Your task to perform on an android device: Is it going to rain this weekend? Image 0: 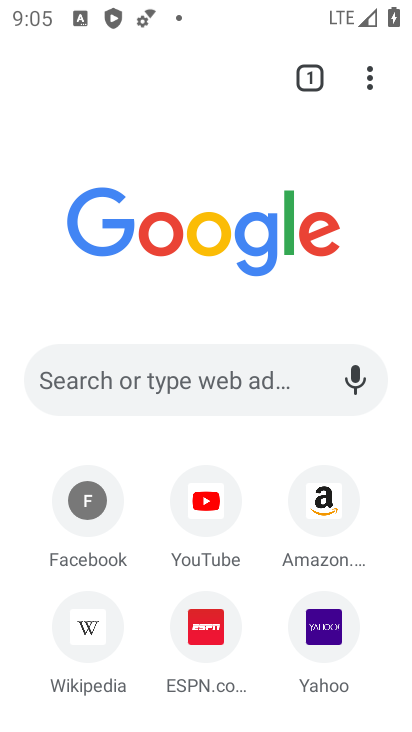
Step 0: press home button
Your task to perform on an android device: Is it going to rain this weekend? Image 1: 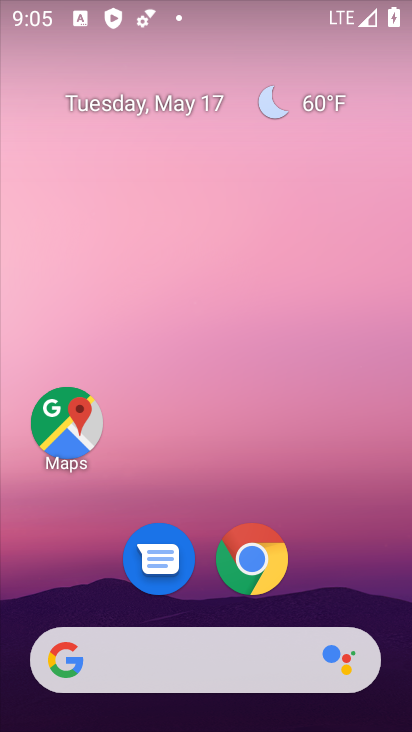
Step 1: drag from (196, 609) to (252, 223)
Your task to perform on an android device: Is it going to rain this weekend? Image 2: 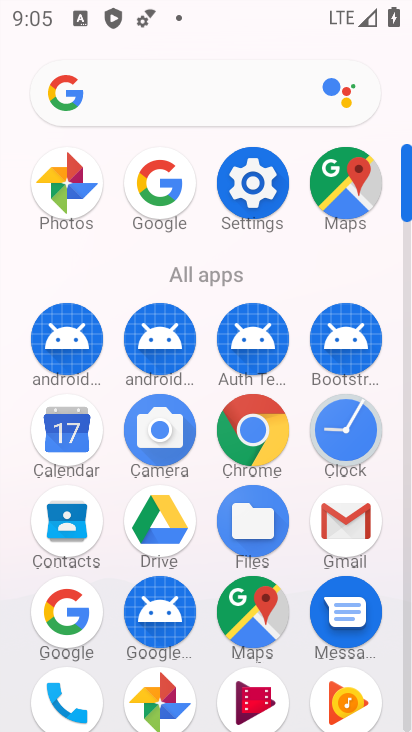
Step 2: click (72, 618)
Your task to perform on an android device: Is it going to rain this weekend? Image 3: 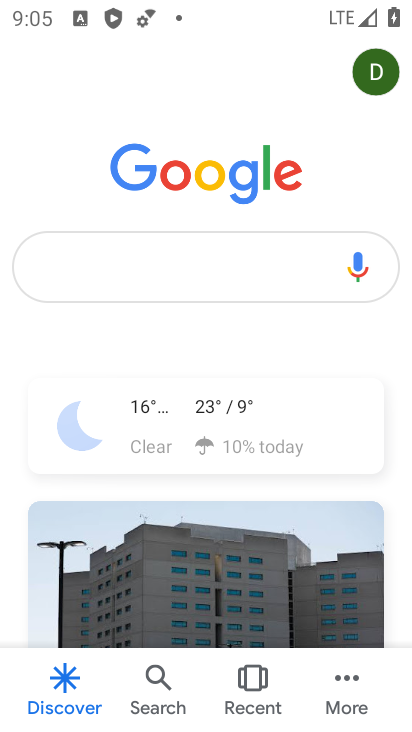
Step 3: click (172, 443)
Your task to perform on an android device: Is it going to rain this weekend? Image 4: 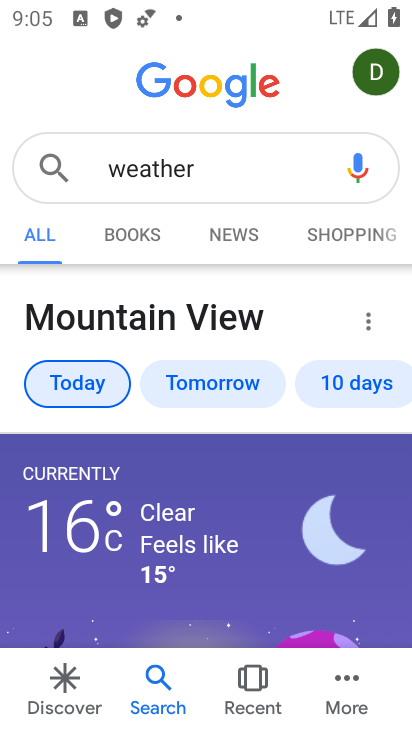
Step 4: click (321, 391)
Your task to perform on an android device: Is it going to rain this weekend? Image 5: 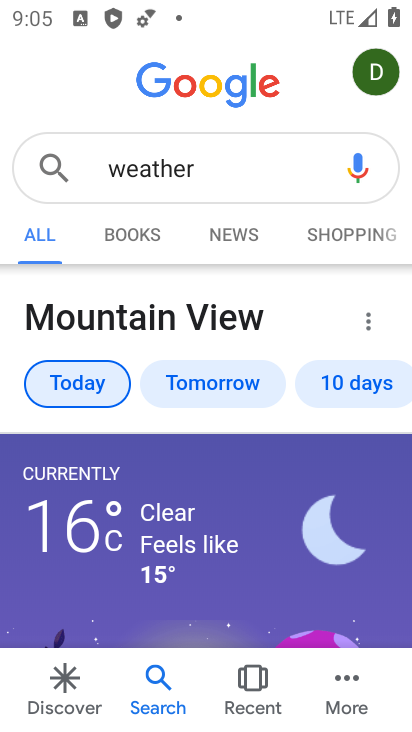
Step 5: click (339, 387)
Your task to perform on an android device: Is it going to rain this weekend? Image 6: 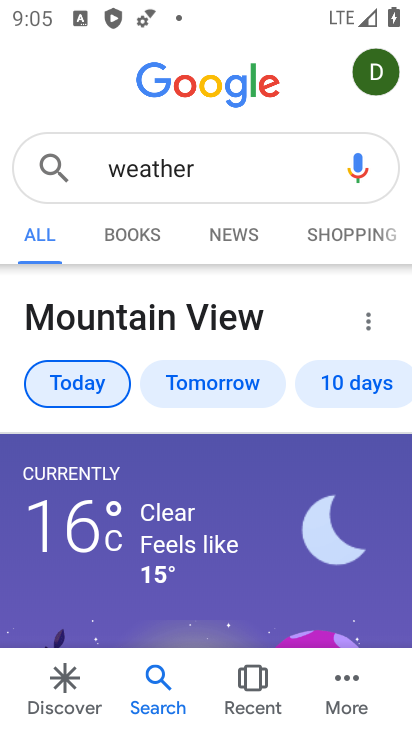
Step 6: click (334, 380)
Your task to perform on an android device: Is it going to rain this weekend? Image 7: 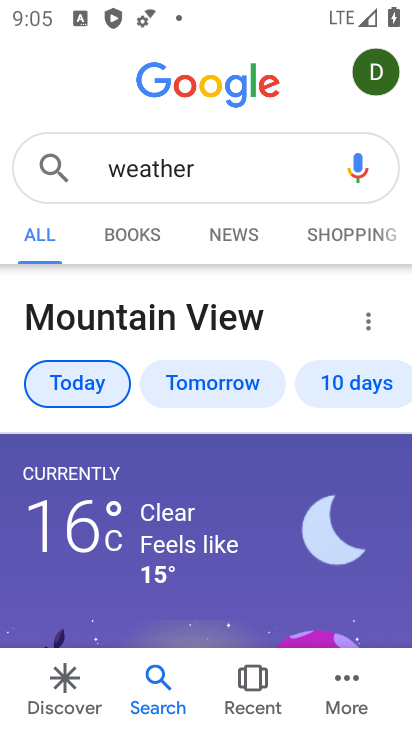
Step 7: click (334, 380)
Your task to perform on an android device: Is it going to rain this weekend? Image 8: 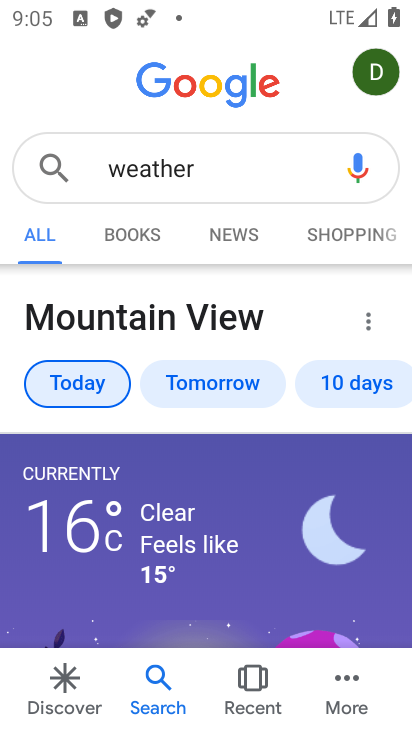
Step 8: click (334, 380)
Your task to perform on an android device: Is it going to rain this weekend? Image 9: 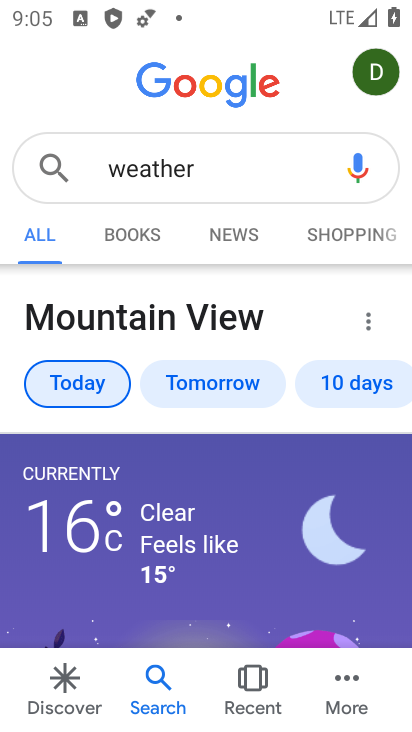
Step 9: click (255, 368)
Your task to perform on an android device: Is it going to rain this weekend? Image 10: 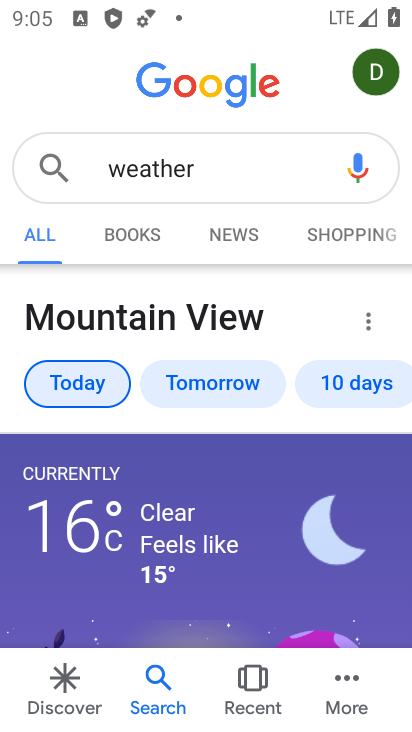
Step 10: click (364, 383)
Your task to perform on an android device: Is it going to rain this weekend? Image 11: 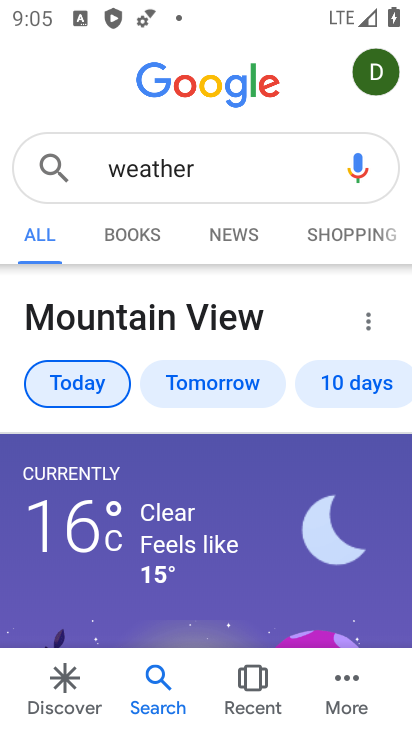
Step 11: drag from (240, 553) to (288, 296)
Your task to perform on an android device: Is it going to rain this weekend? Image 12: 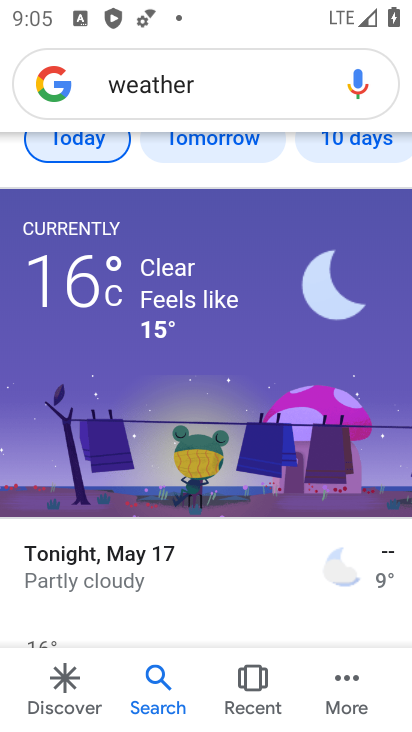
Step 12: click (280, 350)
Your task to perform on an android device: Is it going to rain this weekend? Image 13: 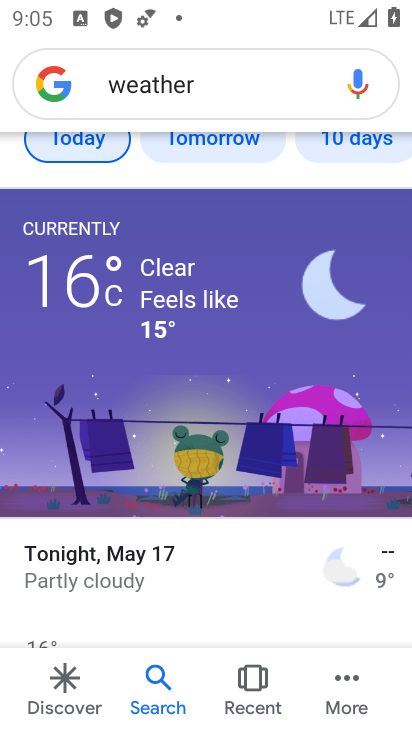
Step 13: drag from (282, 522) to (317, 322)
Your task to perform on an android device: Is it going to rain this weekend? Image 14: 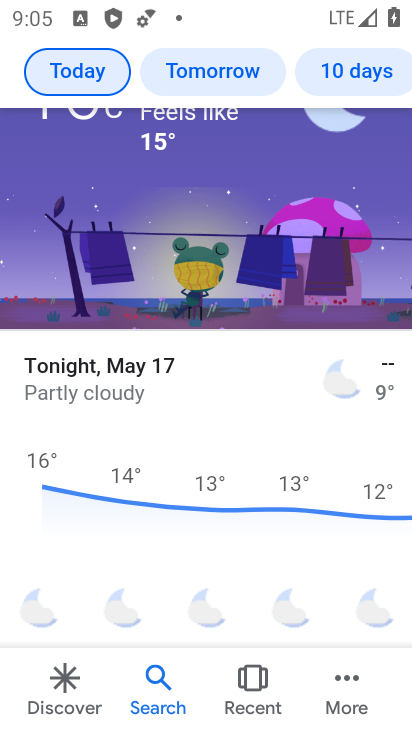
Step 14: drag from (289, 548) to (288, 433)
Your task to perform on an android device: Is it going to rain this weekend? Image 15: 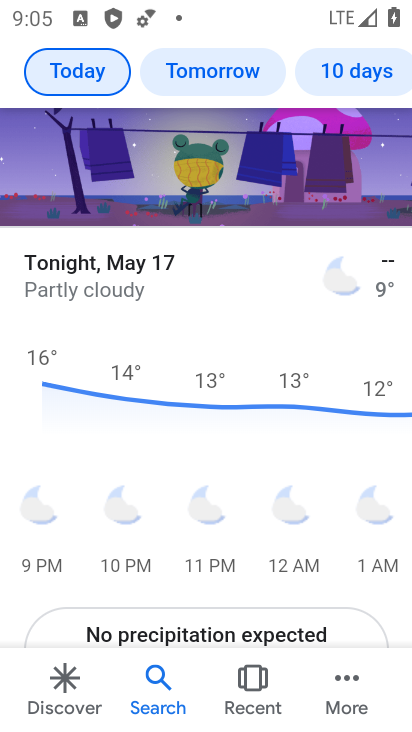
Step 15: drag from (187, 450) to (291, 459)
Your task to perform on an android device: Is it going to rain this weekend? Image 16: 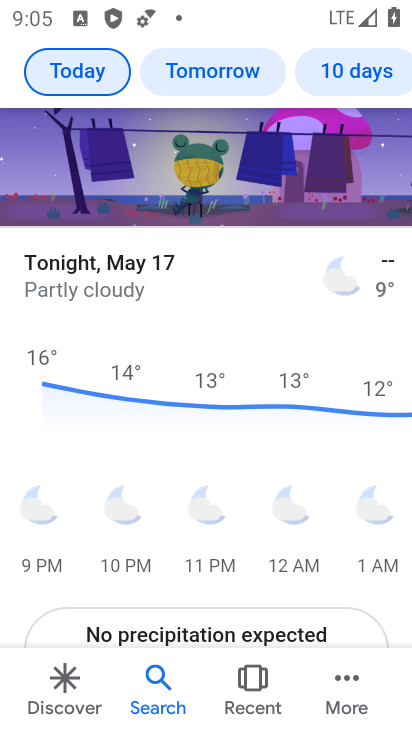
Step 16: drag from (265, 539) to (282, 417)
Your task to perform on an android device: Is it going to rain this weekend? Image 17: 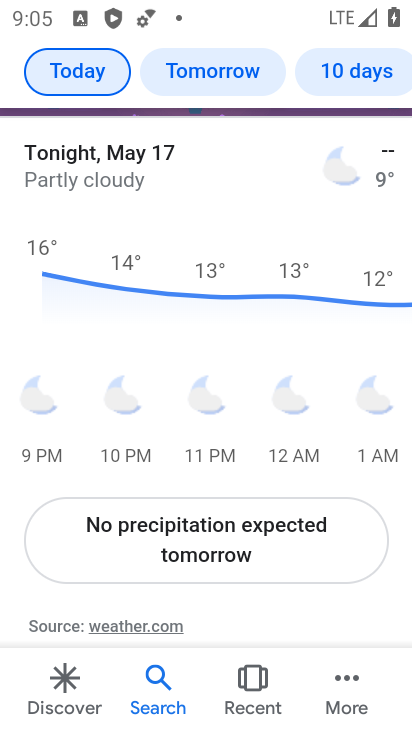
Step 17: drag from (282, 577) to (316, 417)
Your task to perform on an android device: Is it going to rain this weekend? Image 18: 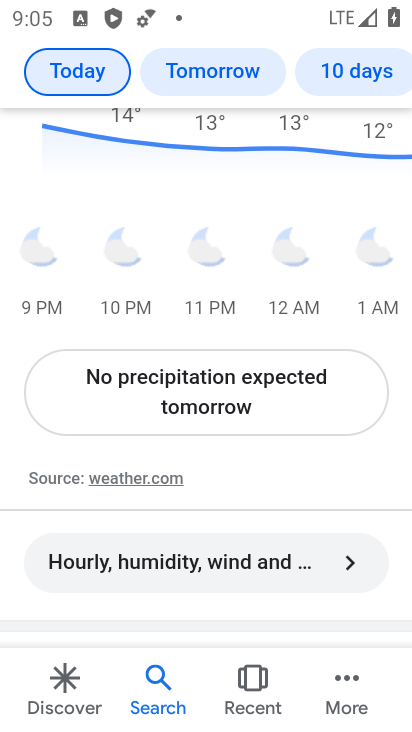
Step 18: drag from (280, 491) to (298, 347)
Your task to perform on an android device: Is it going to rain this weekend? Image 19: 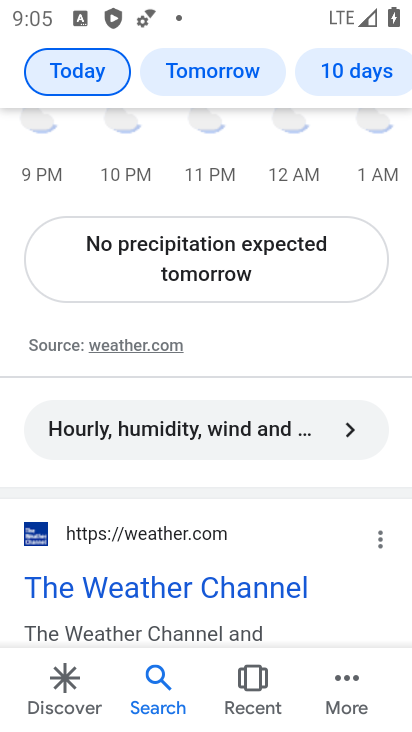
Step 19: drag from (298, 347) to (298, 553)
Your task to perform on an android device: Is it going to rain this weekend? Image 20: 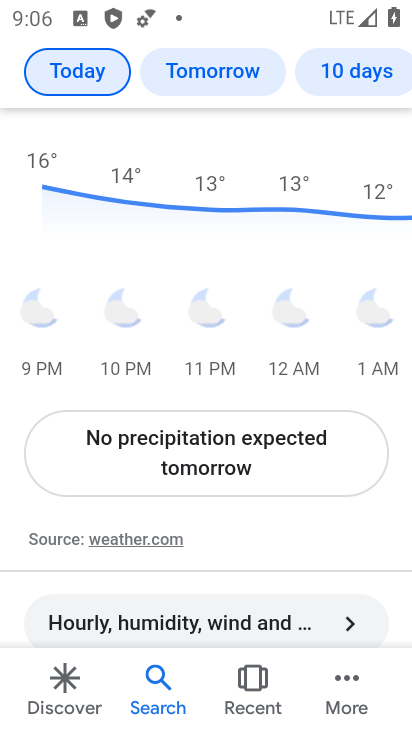
Step 20: drag from (267, 261) to (267, 505)
Your task to perform on an android device: Is it going to rain this weekend? Image 21: 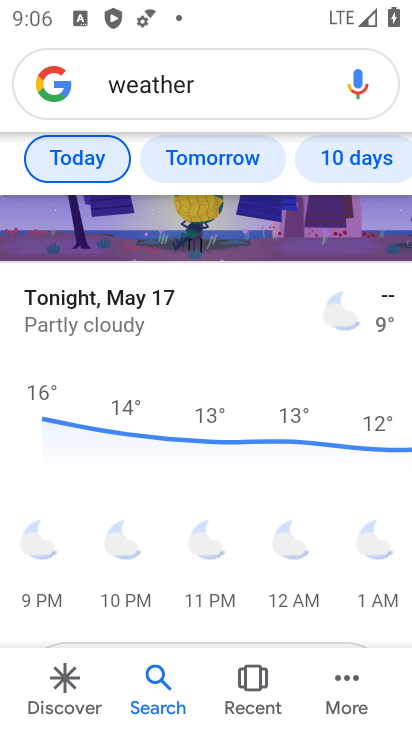
Step 21: click (340, 162)
Your task to perform on an android device: Is it going to rain this weekend? Image 22: 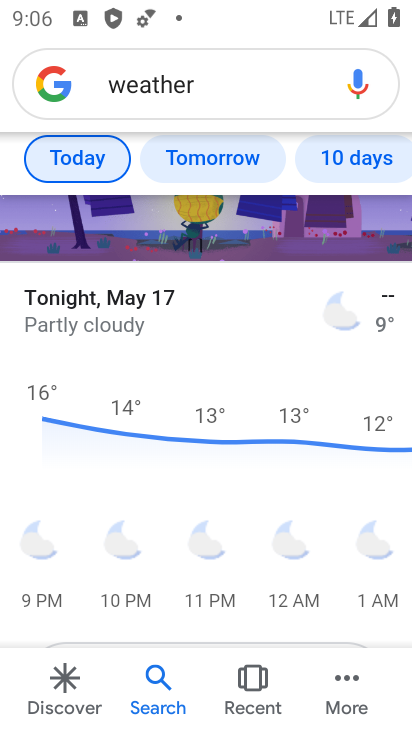
Step 22: click (340, 162)
Your task to perform on an android device: Is it going to rain this weekend? Image 23: 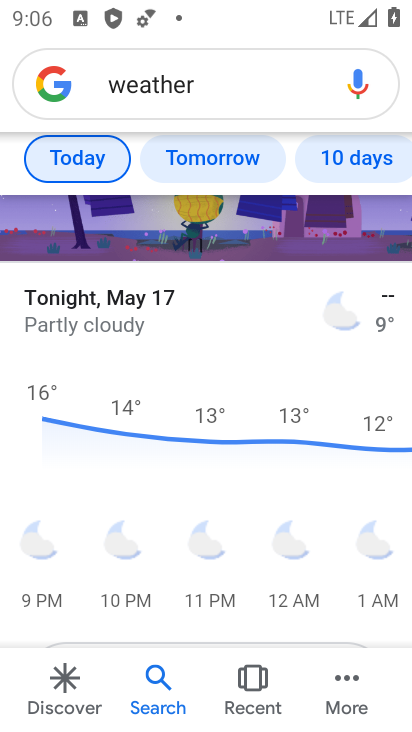
Step 23: task complete